Your task to perform on an android device: turn off sleep mode Image 0: 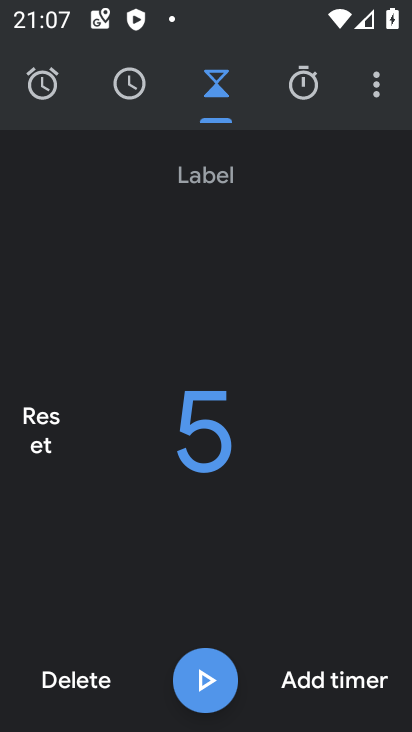
Step 0: press home button
Your task to perform on an android device: turn off sleep mode Image 1: 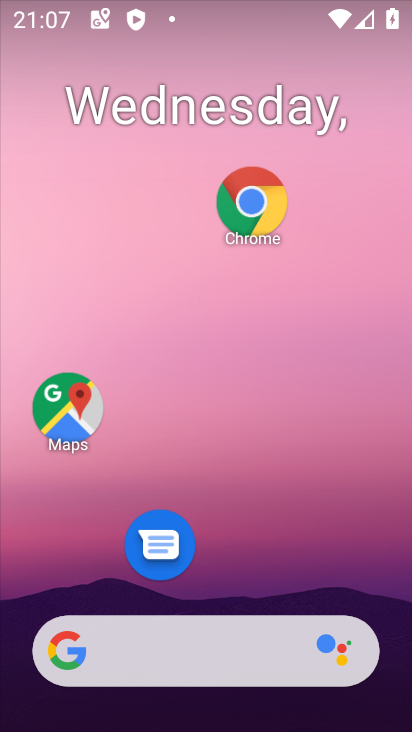
Step 1: drag from (244, 578) to (119, 105)
Your task to perform on an android device: turn off sleep mode Image 2: 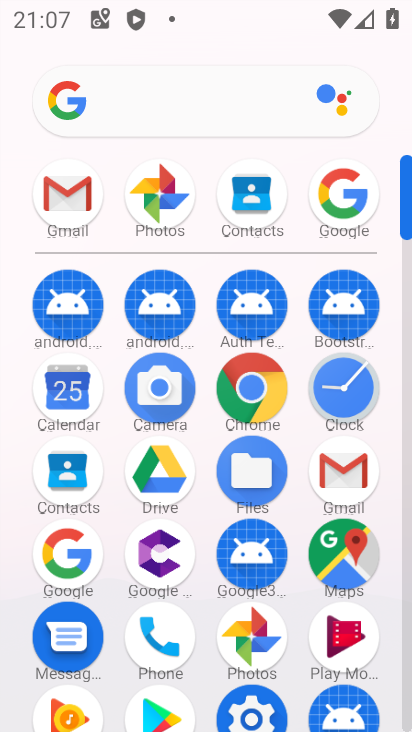
Step 2: click (270, 701)
Your task to perform on an android device: turn off sleep mode Image 3: 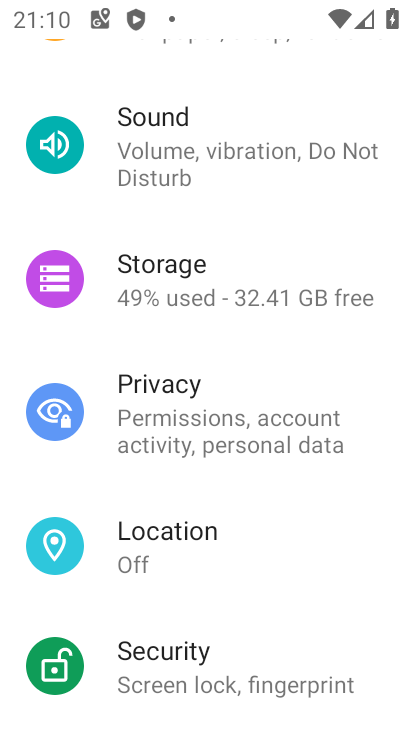
Step 3: task complete